Your task to perform on an android device: turn pop-ups off in chrome Image 0: 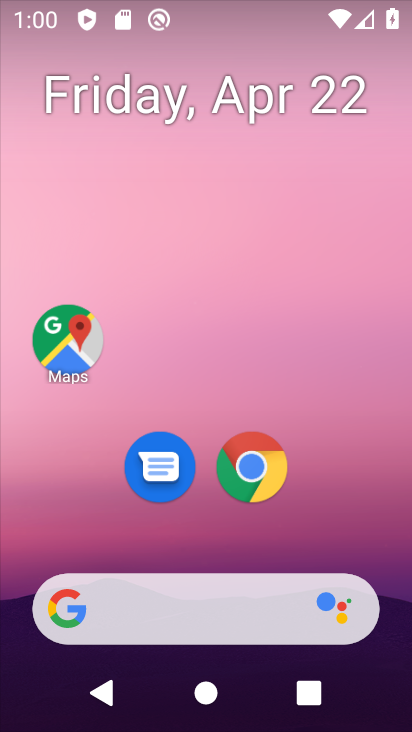
Step 0: click (247, 461)
Your task to perform on an android device: turn pop-ups off in chrome Image 1: 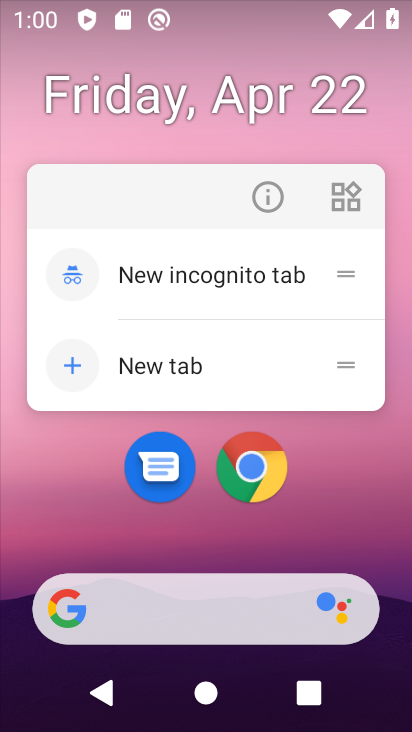
Step 1: click (205, 515)
Your task to perform on an android device: turn pop-ups off in chrome Image 2: 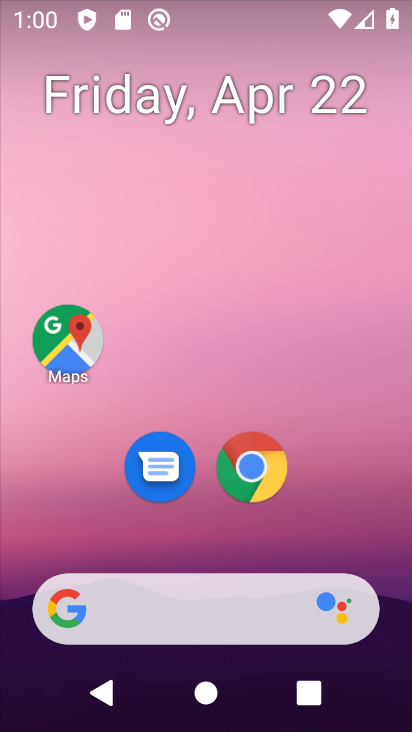
Step 2: drag from (213, 533) to (255, 116)
Your task to perform on an android device: turn pop-ups off in chrome Image 3: 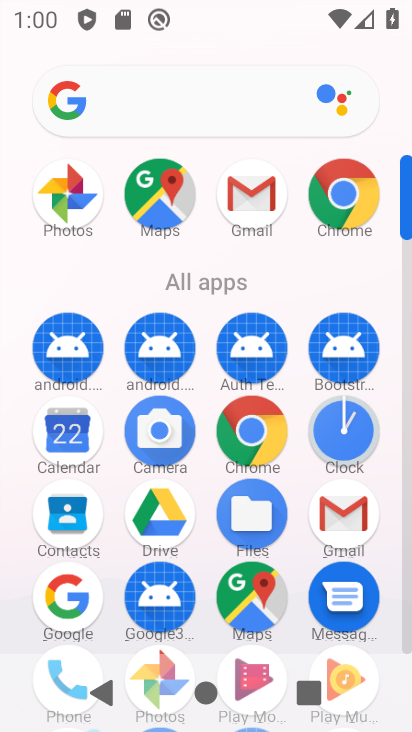
Step 3: click (248, 423)
Your task to perform on an android device: turn pop-ups off in chrome Image 4: 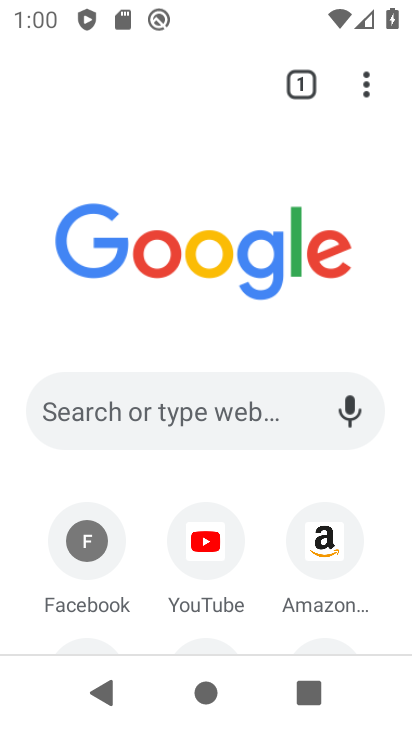
Step 4: click (362, 79)
Your task to perform on an android device: turn pop-ups off in chrome Image 5: 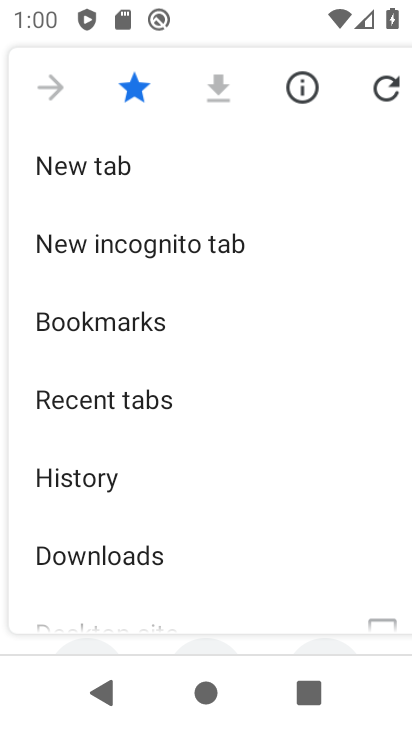
Step 5: drag from (238, 513) to (285, 74)
Your task to perform on an android device: turn pop-ups off in chrome Image 6: 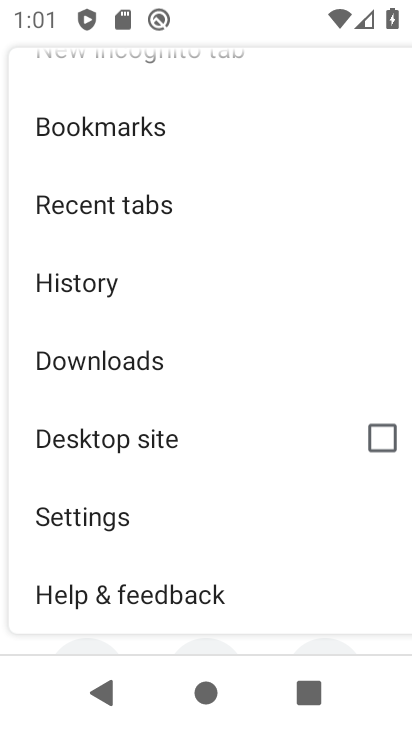
Step 6: click (157, 513)
Your task to perform on an android device: turn pop-ups off in chrome Image 7: 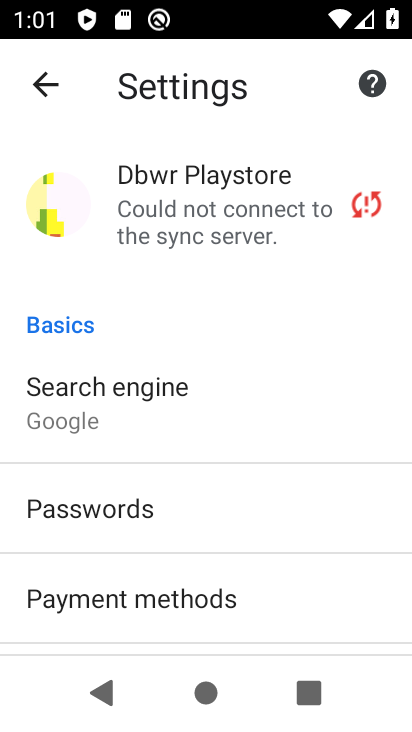
Step 7: drag from (252, 620) to (313, 41)
Your task to perform on an android device: turn pop-ups off in chrome Image 8: 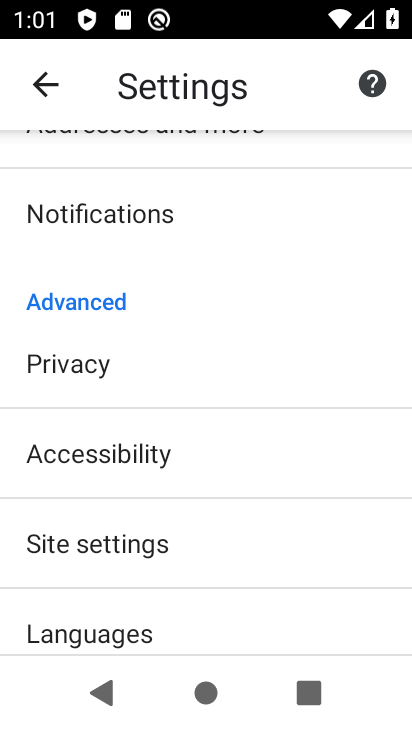
Step 8: click (186, 546)
Your task to perform on an android device: turn pop-ups off in chrome Image 9: 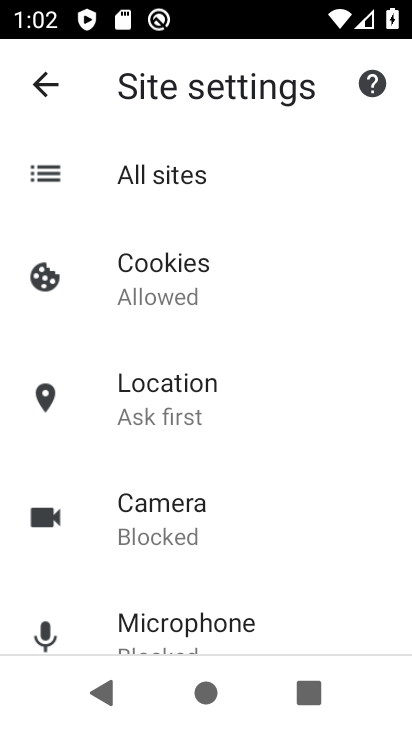
Step 9: drag from (255, 617) to (266, 232)
Your task to perform on an android device: turn pop-ups off in chrome Image 10: 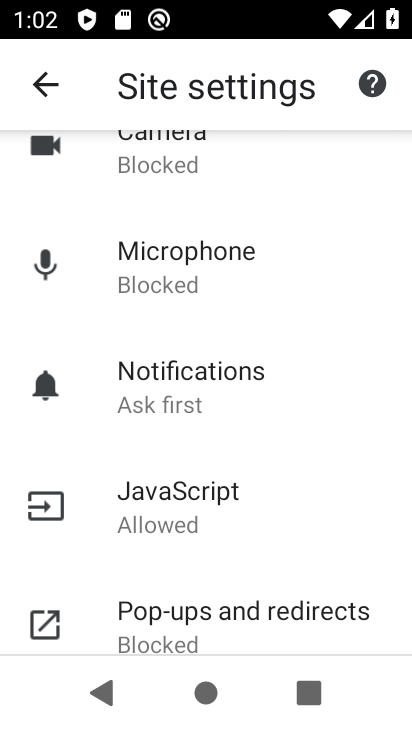
Step 10: click (249, 619)
Your task to perform on an android device: turn pop-ups off in chrome Image 11: 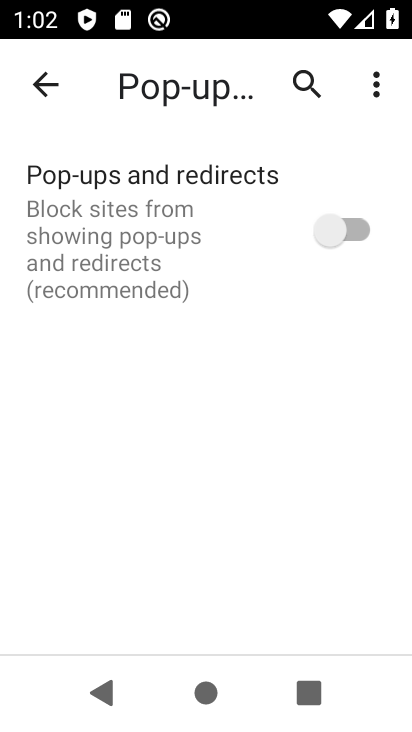
Step 11: task complete